Your task to perform on an android device: When is my next meeting? Image 0: 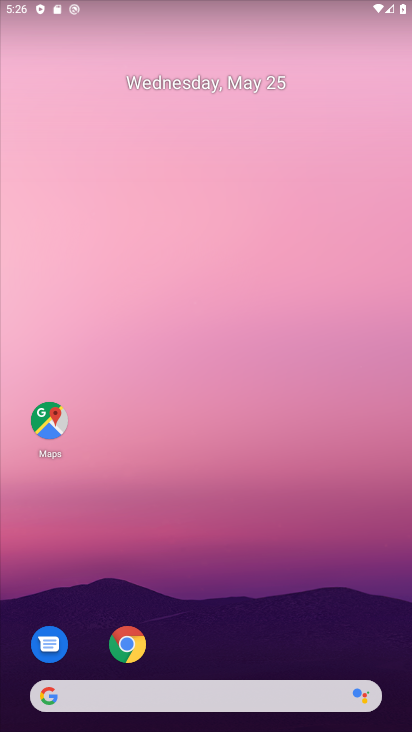
Step 0: drag from (250, 637) to (361, 134)
Your task to perform on an android device: When is my next meeting? Image 1: 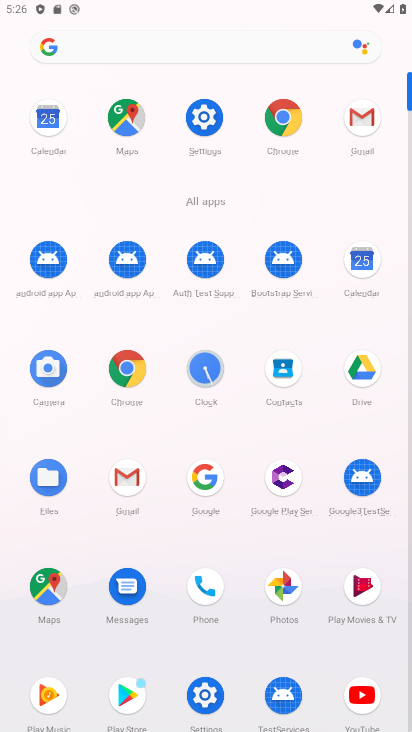
Step 1: click (38, 124)
Your task to perform on an android device: When is my next meeting? Image 2: 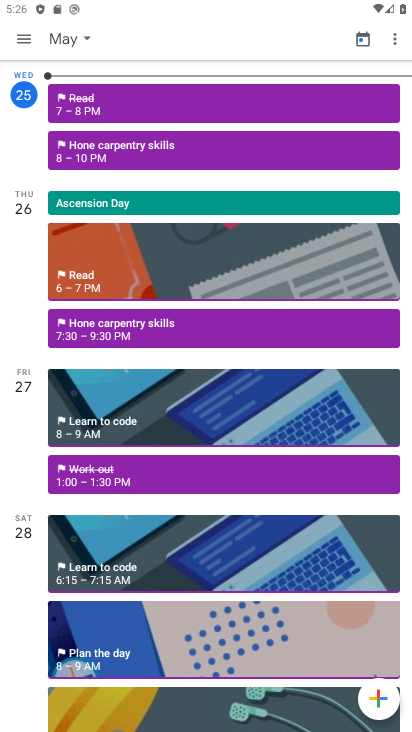
Step 2: task complete